Your task to perform on an android device: Open Chrome and go to the settings page Image 0: 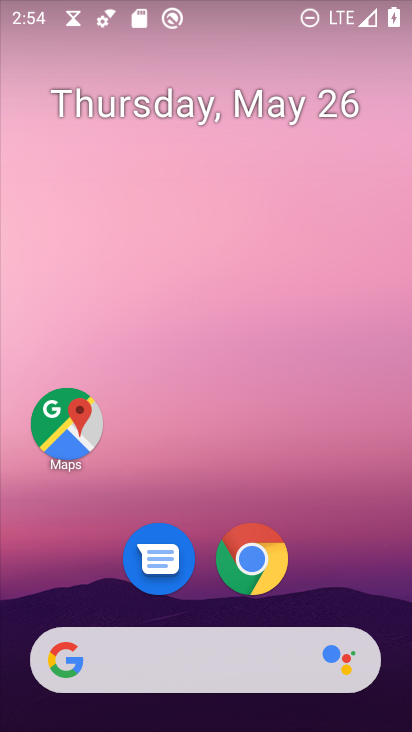
Step 0: click (254, 583)
Your task to perform on an android device: Open Chrome and go to the settings page Image 1: 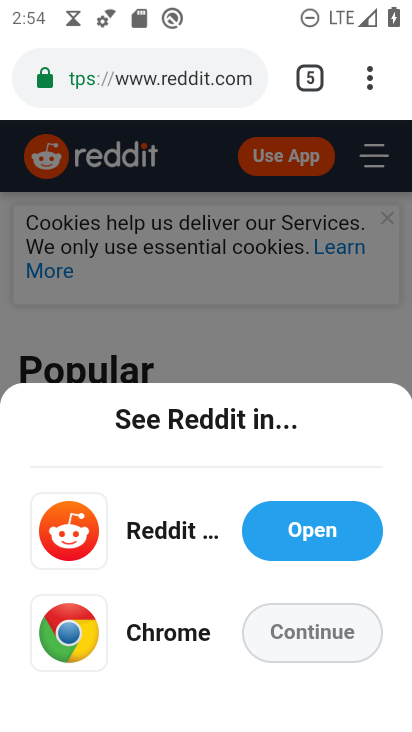
Step 1: task complete